Your task to perform on an android device: Go to display settings Image 0: 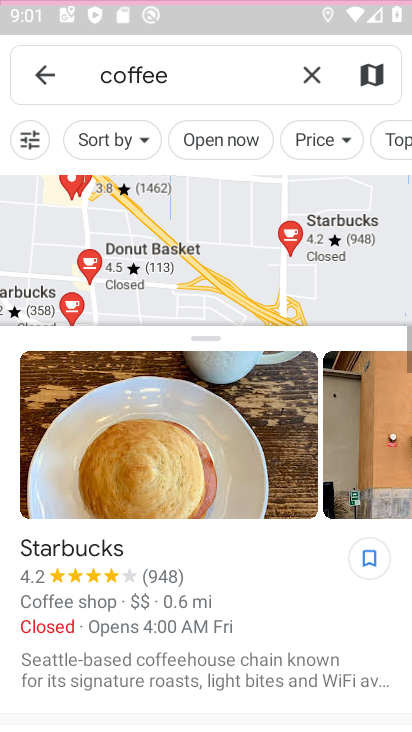
Step 0: drag from (300, 604) to (260, 153)
Your task to perform on an android device: Go to display settings Image 1: 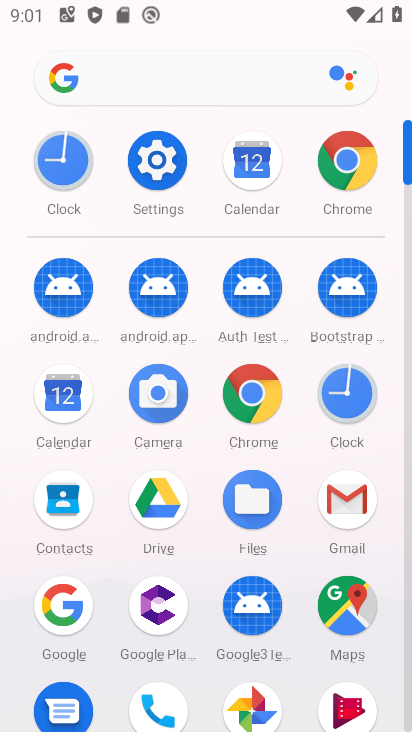
Step 1: click (154, 158)
Your task to perform on an android device: Go to display settings Image 2: 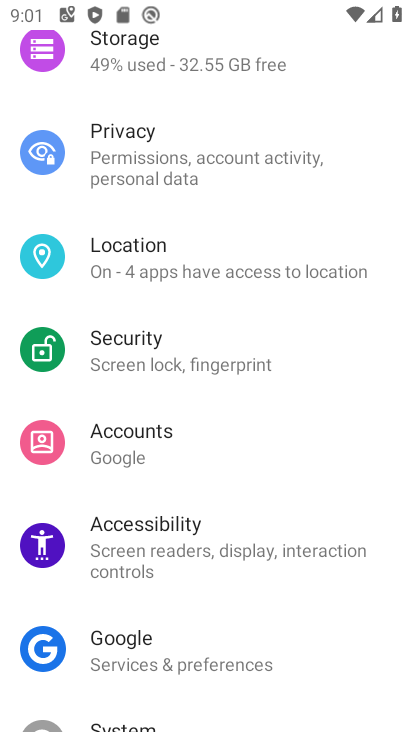
Step 2: drag from (185, 131) to (158, 694)
Your task to perform on an android device: Go to display settings Image 3: 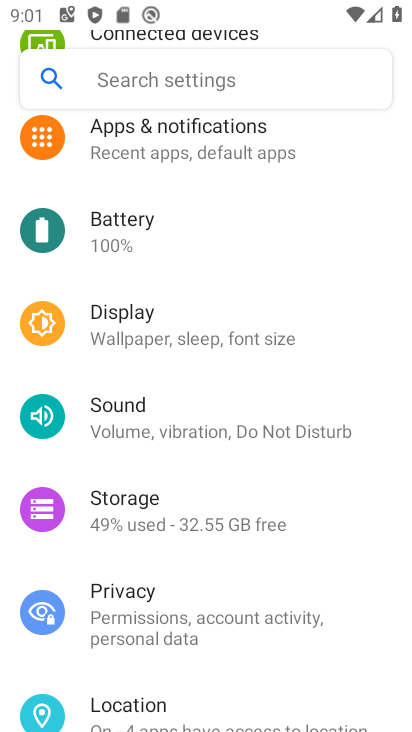
Step 3: click (127, 344)
Your task to perform on an android device: Go to display settings Image 4: 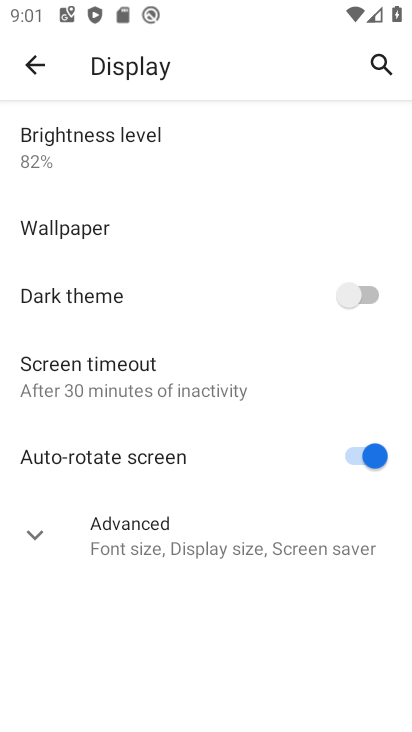
Step 4: task complete